Your task to perform on an android device: open app "Reddit" (install if not already installed) and enter user name: "issues@yahoo.com" and password: "belt" Image 0: 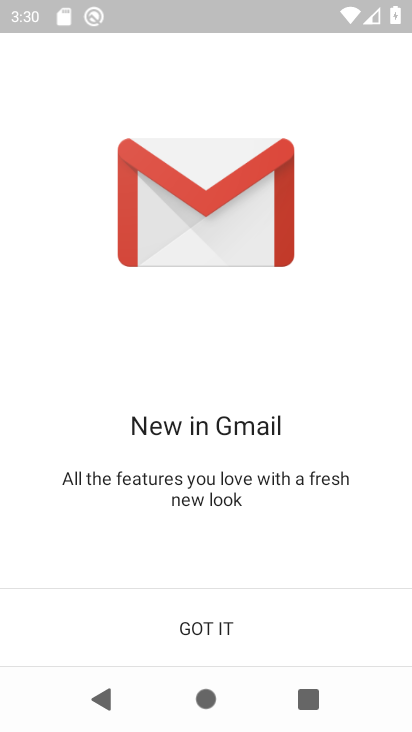
Step 0: press home button
Your task to perform on an android device: open app "Reddit" (install if not already installed) and enter user name: "issues@yahoo.com" and password: "belt" Image 1: 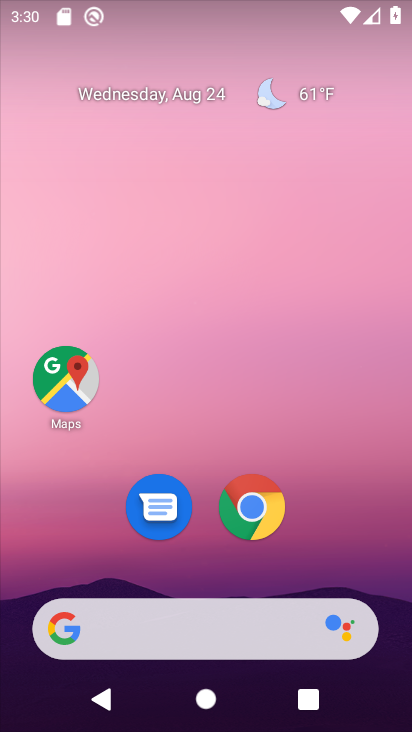
Step 1: drag from (211, 636) to (179, 64)
Your task to perform on an android device: open app "Reddit" (install if not already installed) and enter user name: "issues@yahoo.com" and password: "belt" Image 2: 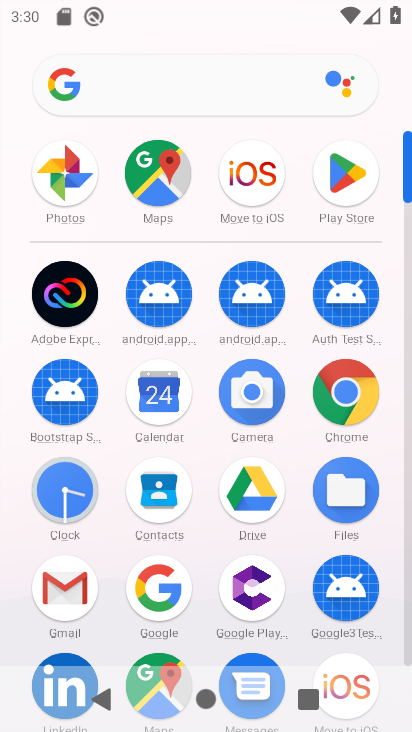
Step 2: click (348, 174)
Your task to perform on an android device: open app "Reddit" (install if not already installed) and enter user name: "issues@yahoo.com" and password: "belt" Image 3: 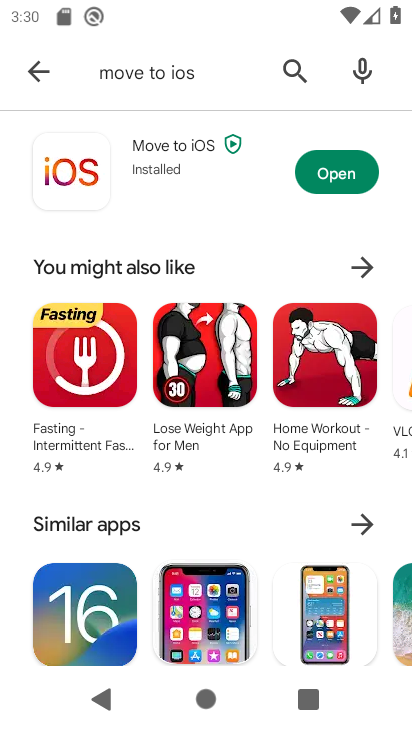
Step 3: press back button
Your task to perform on an android device: open app "Reddit" (install if not already installed) and enter user name: "issues@yahoo.com" and password: "belt" Image 4: 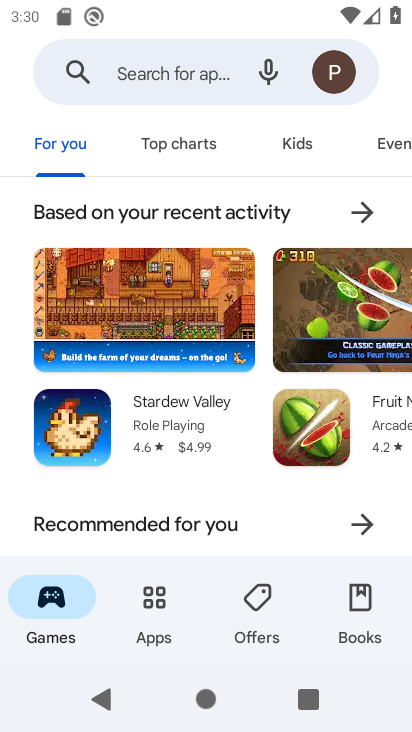
Step 4: click (167, 60)
Your task to perform on an android device: open app "Reddit" (install if not already installed) and enter user name: "issues@yahoo.com" and password: "belt" Image 5: 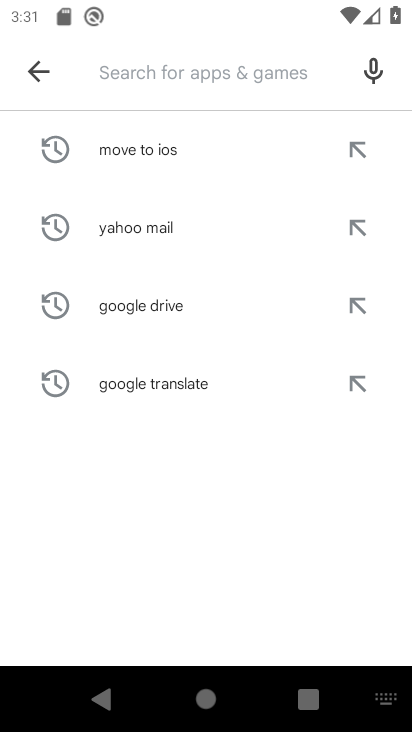
Step 5: type "Reddit"
Your task to perform on an android device: open app "Reddit" (install if not already installed) and enter user name: "issues@yahoo.com" and password: "belt" Image 6: 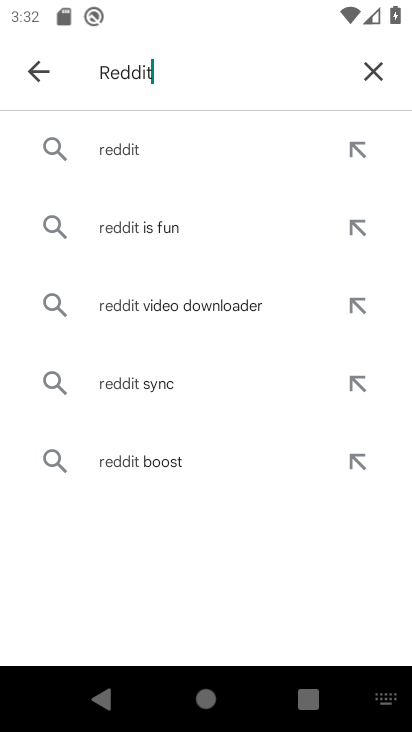
Step 6: click (115, 152)
Your task to perform on an android device: open app "Reddit" (install if not already installed) and enter user name: "issues@yahoo.com" and password: "belt" Image 7: 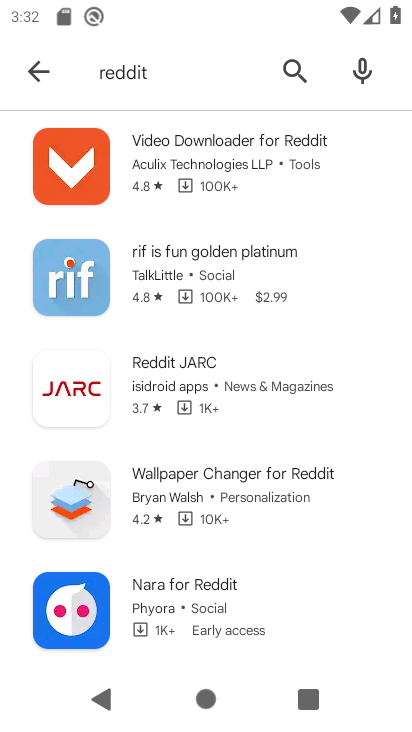
Step 7: drag from (253, 531) to (312, 406)
Your task to perform on an android device: open app "Reddit" (install if not already installed) and enter user name: "issues@yahoo.com" and password: "belt" Image 8: 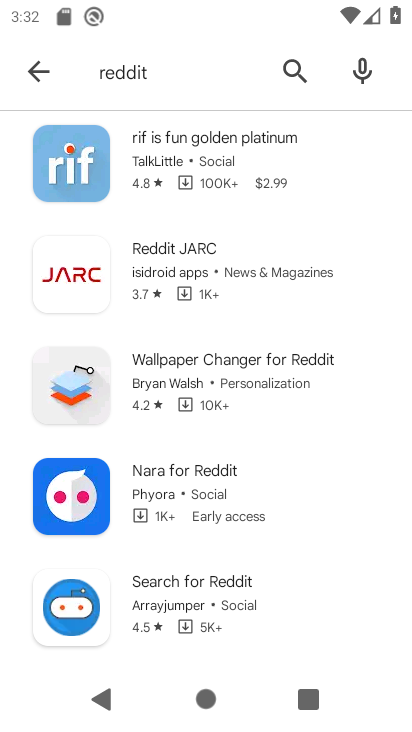
Step 8: drag from (231, 567) to (341, 431)
Your task to perform on an android device: open app "Reddit" (install if not already installed) and enter user name: "issues@yahoo.com" and password: "belt" Image 9: 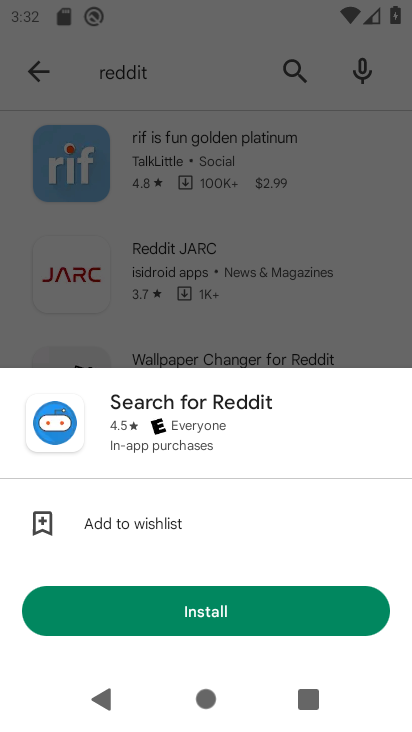
Step 9: click (352, 235)
Your task to perform on an android device: open app "Reddit" (install if not already installed) and enter user name: "issues@yahoo.com" and password: "belt" Image 10: 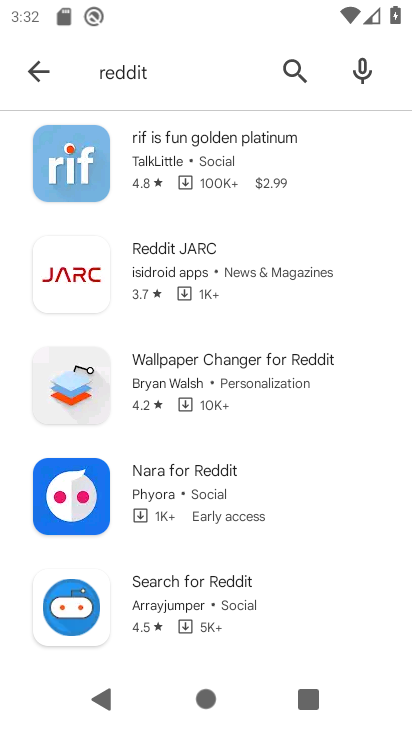
Step 10: drag from (176, 547) to (292, 343)
Your task to perform on an android device: open app "Reddit" (install if not already installed) and enter user name: "issues@yahoo.com" and password: "belt" Image 11: 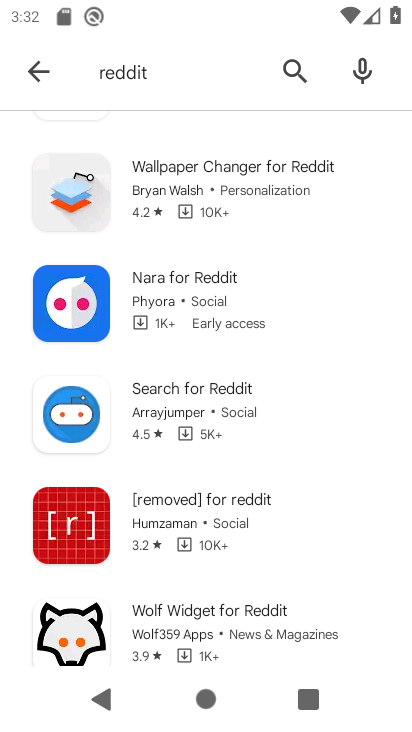
Step 11: drag from (188, 592) to (334, 427)
Your task to perform on an android device: open app "Reddit" (install if not already installed) and enter user name: "issues@yahoo.com" and password: "belt" Image 12: 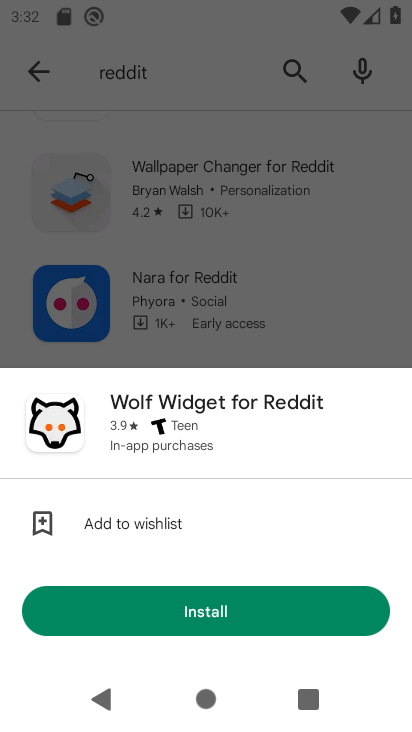
Step 12: click (304, 278)
Your task to perform on an android device: open app "Reddit" (install if not already installed) and enter user name: "issues@yahoo.com" and password: "belt" Image 13: 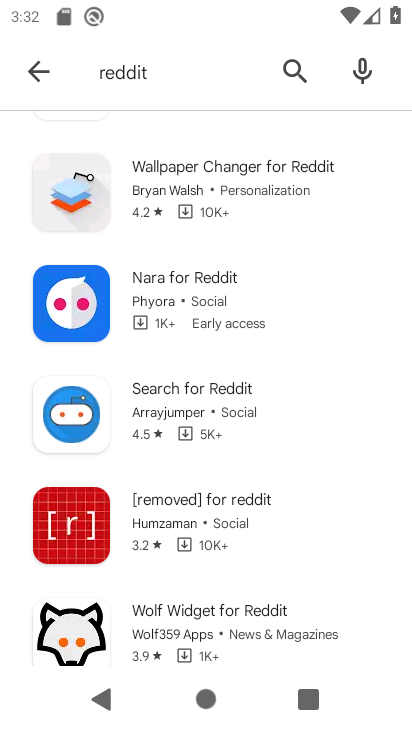
Step 13: task complete